Your task to perform on an android device: Open settings Image 0: 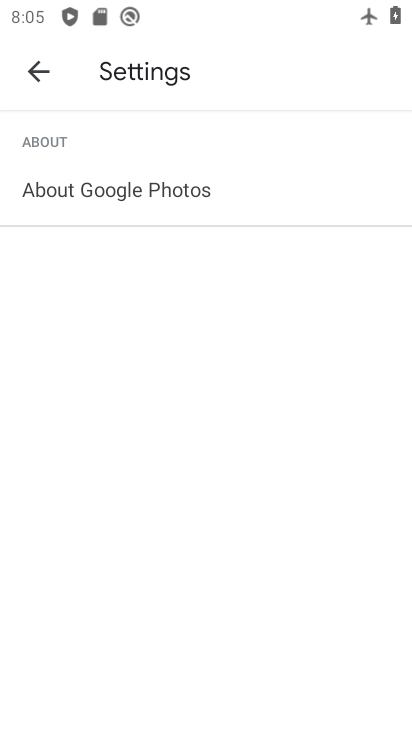
Step 0: press home button
Your task to perform on an android device: Open settings Image 1: 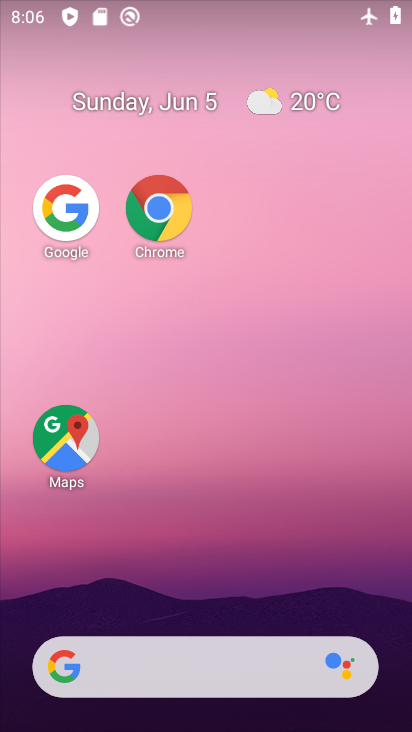
Step 1: drag from (211, 613) to (262, 12)
Your task to perform on an android device: Open settings Image 2: 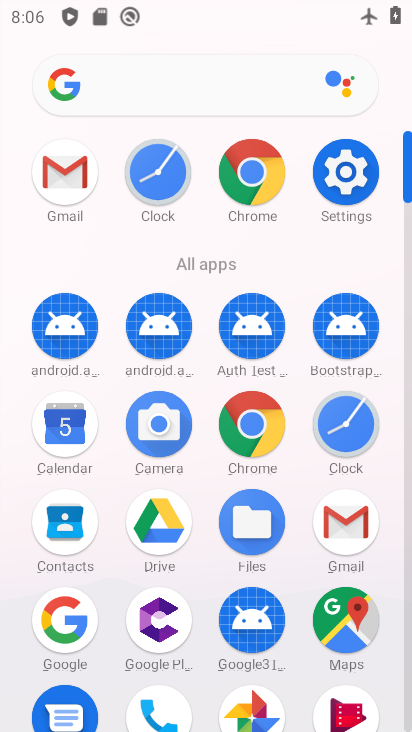
Step 2: click (352, 179)
Your task to perform on an android device: Open settings Image 3: 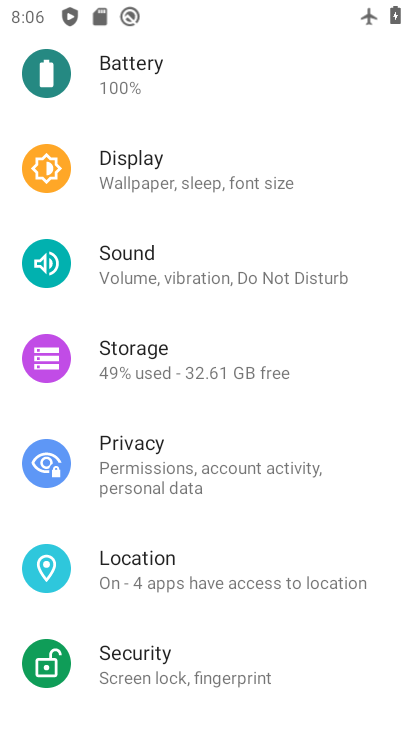
Step 3: task complete